Your task to perform on an android device: toggle wifi Image 0: 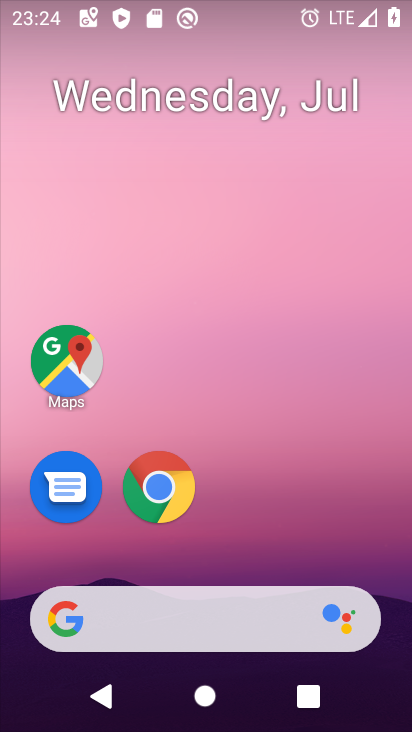
Step 0: drag from (135, 13) to (220, 556)
Your task to perform on an android device: toggle wifi Image 1: 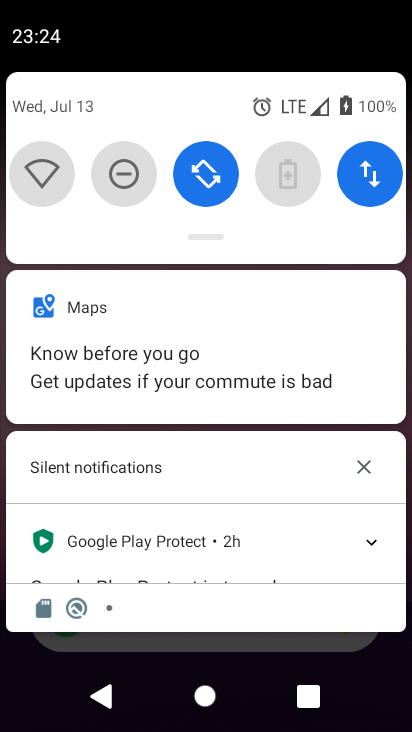
Step 1: click (36, 162)
Your task to perform on an android device: toggle wifi Image 2: 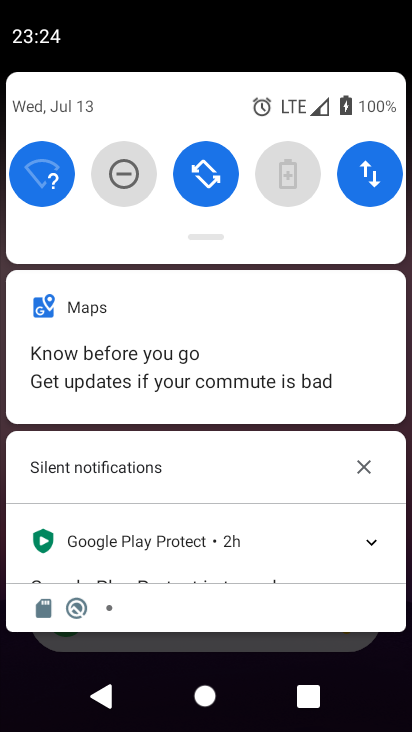
Step 2: task complete